Your task to perform on an android device: Open the web browser Image 0: 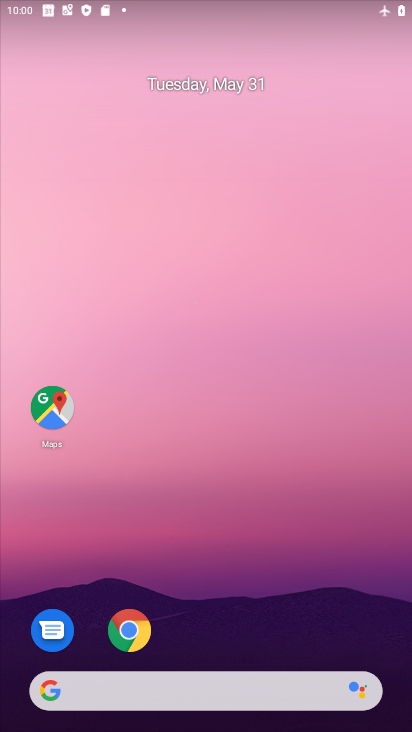
Step 0: drag from (288, 586) to (228, 249)
Your task to perform on an android device: Open the web browser Image 1: 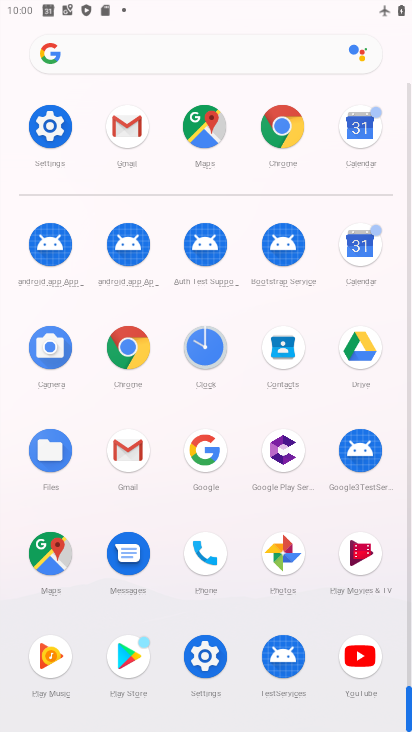
Step 1: click (127, 341)
Your task to perform on an android device: Open the web browser Image 2: 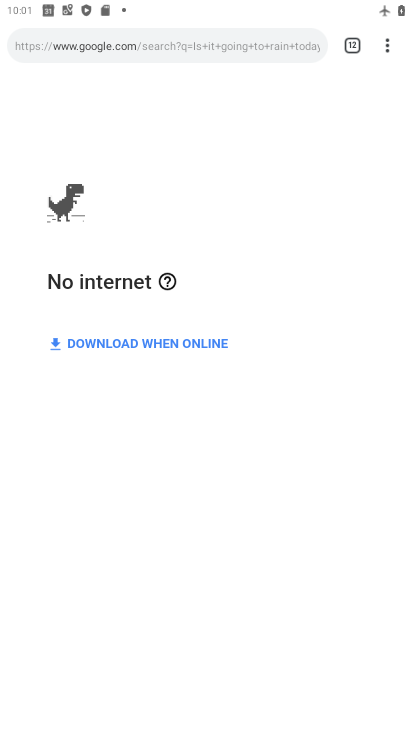
Step 2: task complete